Your task to perform on an android device: turn off priority inbox in the gmail app Image 0: 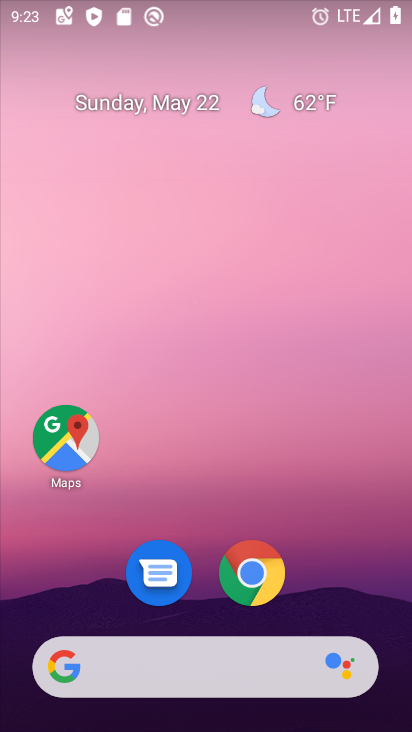
Step 0: drag from (112, 622) to (92, 70)
Your task to perform on an android device: turn off priority inbox in the gmail app Image 1: 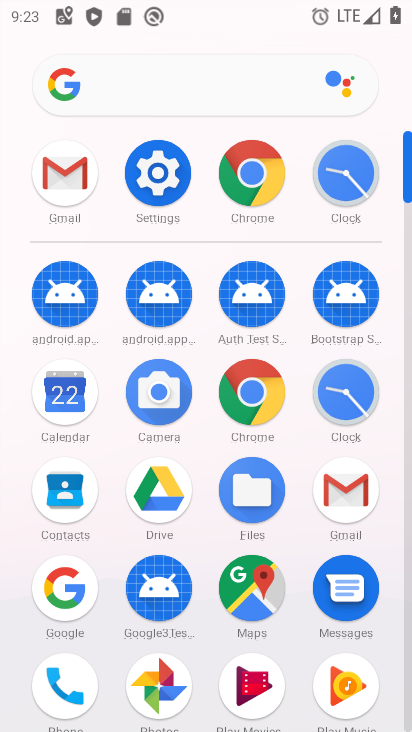
Step 1: click (346, 482)
Your task to perform on an android device: turn off priority inbox in the gmail app Image 2: 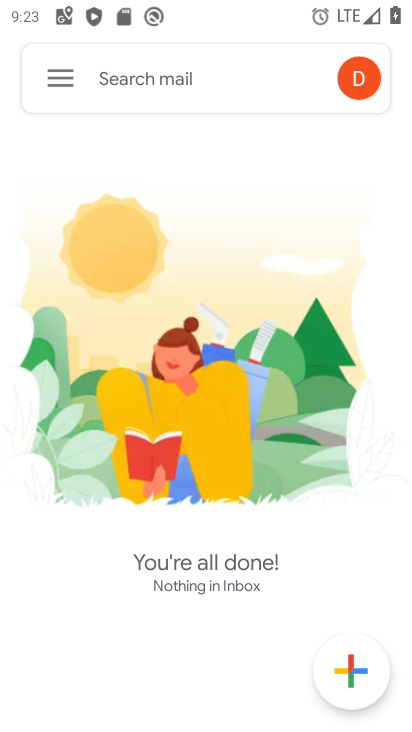
Step 2: click (85, 86)
Your task to perform on an android device: turn off priority inbox in the gmail app Image 3: 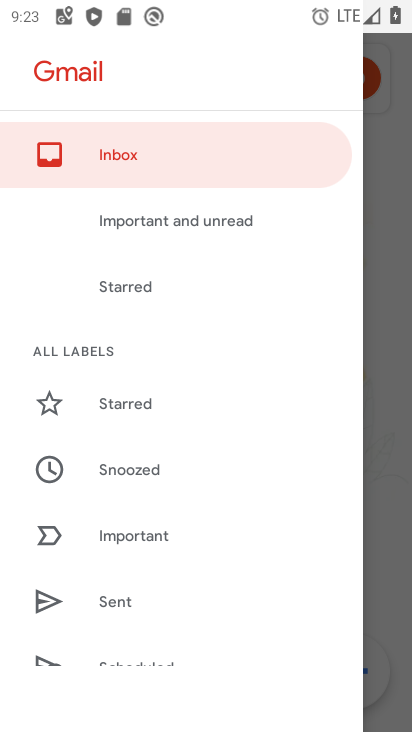
Step 3: drag from (179, 629) to (144, 173)
Your task to perform on an android device: turn off priority inbox in the gmail app Image 4: 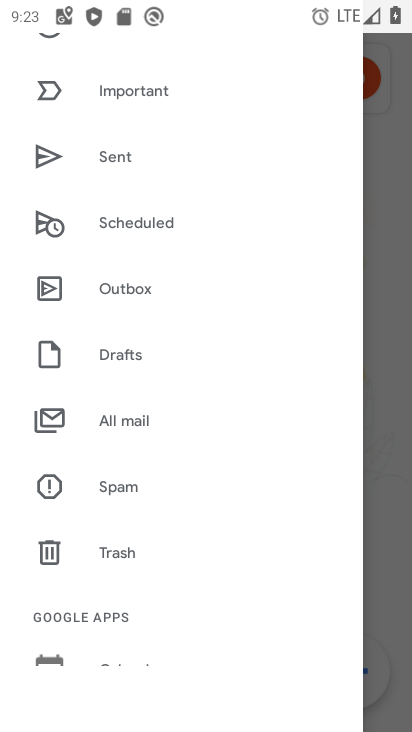
Step 4: drag from (194, 527) to (141, 222)
Your task to perform on an android device: turn off priority inbox in the gmail app Image 5: 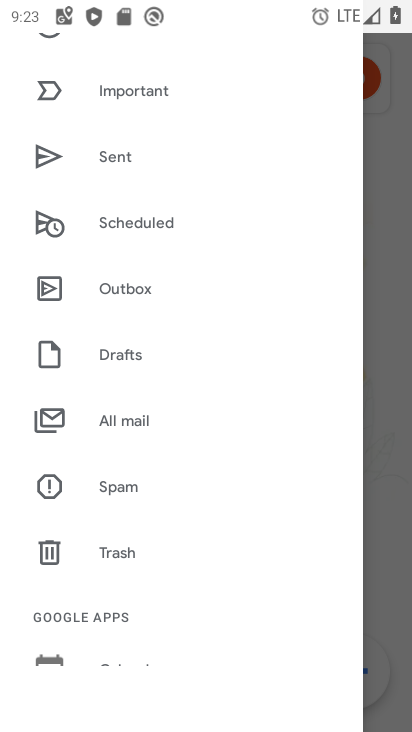
Step 5: drag from (144, 616) to (141, 153)
Your task to perform on an android device: turn off priority inbox in the gmail app Image 6: 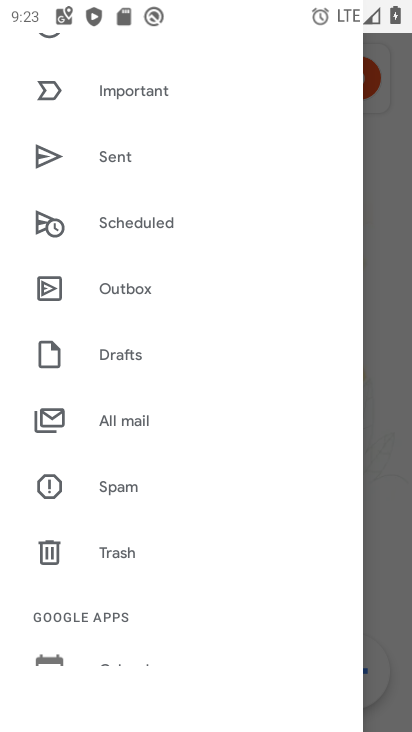
Step 6: drag from (80, 575) to (84, 235)
Your task to perform on an android device: turn off priority inbox in the gmail app Image 7: 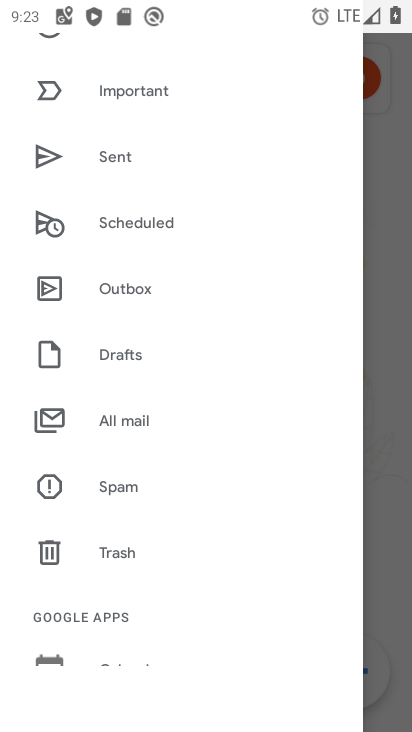
Step 7: drag from (205, 523) to (168, 134)
Your task to perform on an android device: turn off priority inbox in the gmail app Image 8: 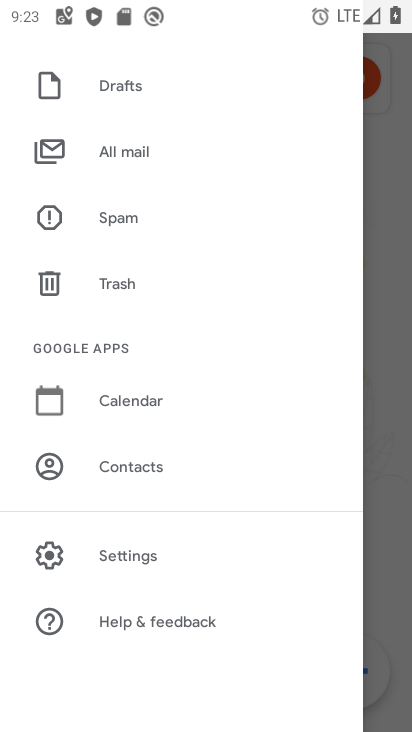
Step 8: click (144, 553)
Your task to perform on an android device: turn off priority inbox in the gmail app Image 9: 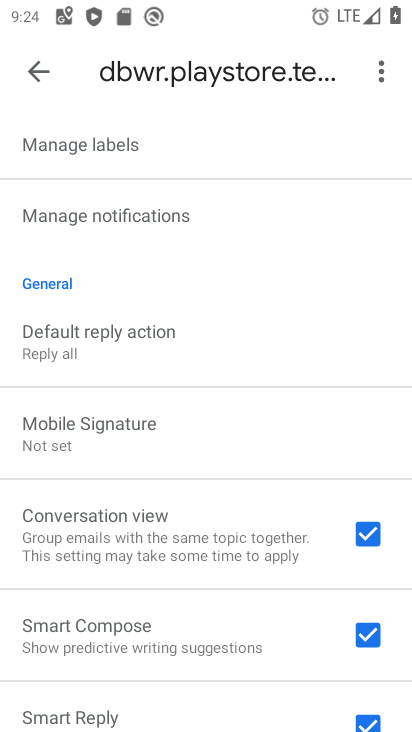
Step 9: drag from (129, 167) to (189, 729)
Your task to perform on an android device: turn off priority inbox in the gmail app Image 10: 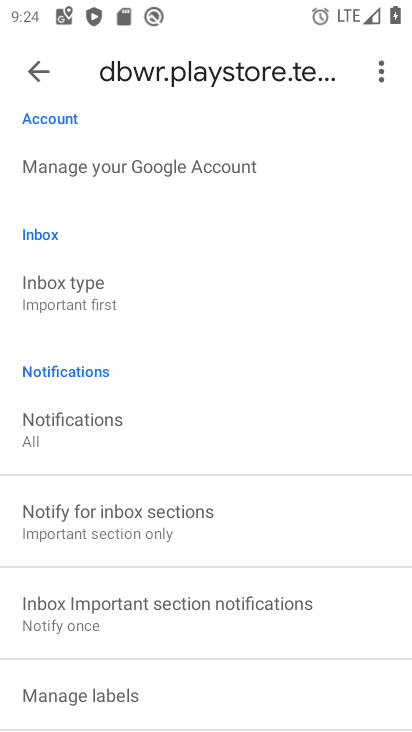
Step 10: click (86, 285)
Your task to perform on an android device: turn off priority inbox in the gmail app Image 11: 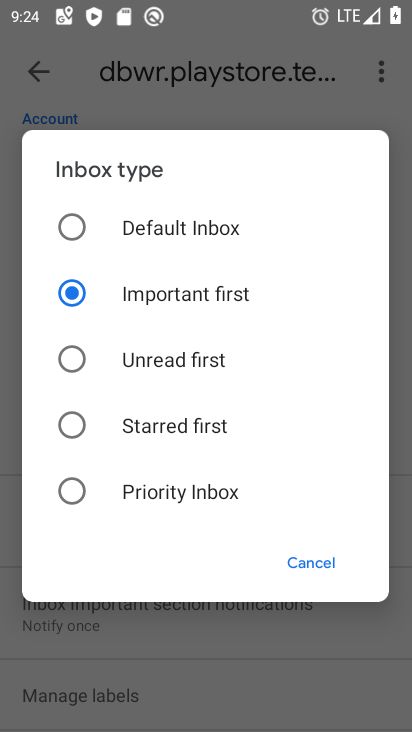
Step 11: click (79, 482)
Your task to perform on an android device: turn off priority inbox in the gmail app Image 12: 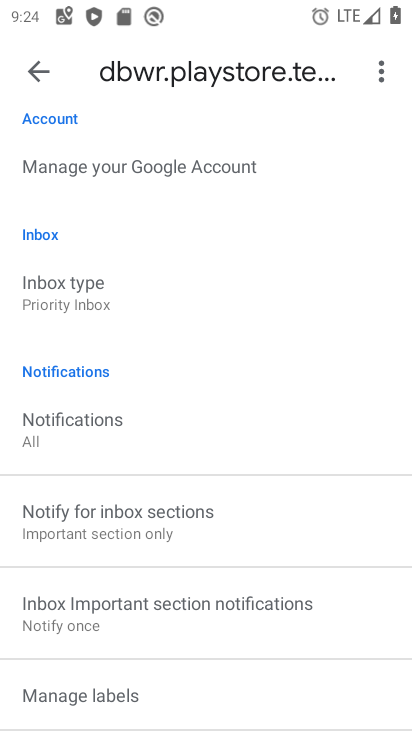
Step 12: click (81, 296)
Your task to perform on an android device: turn off priority inbox in the gmail app Image 13: 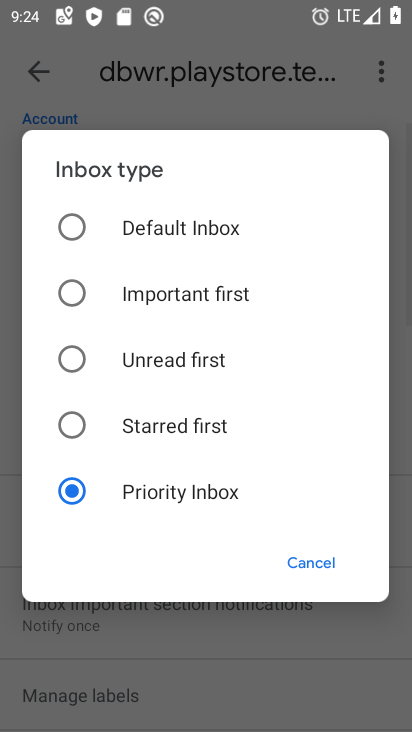
Step 13: click (73, 283)
Your task to perform on an android device: turn off priority inbox in the gmail app Image 14: 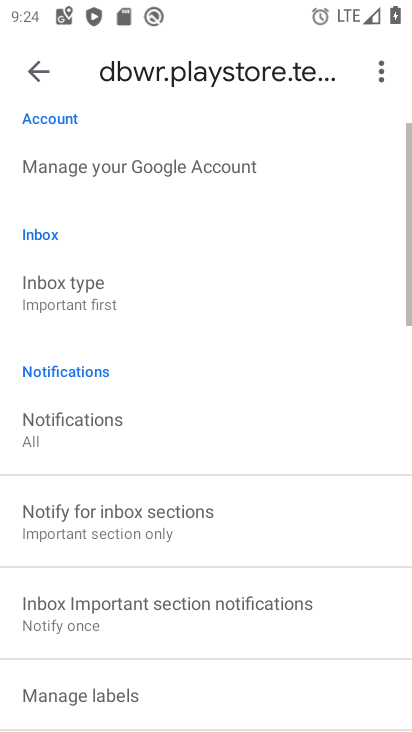
Step 14: task complete